Your task to perform on an android device: turn on priority inbox in the gmail app Image 0: 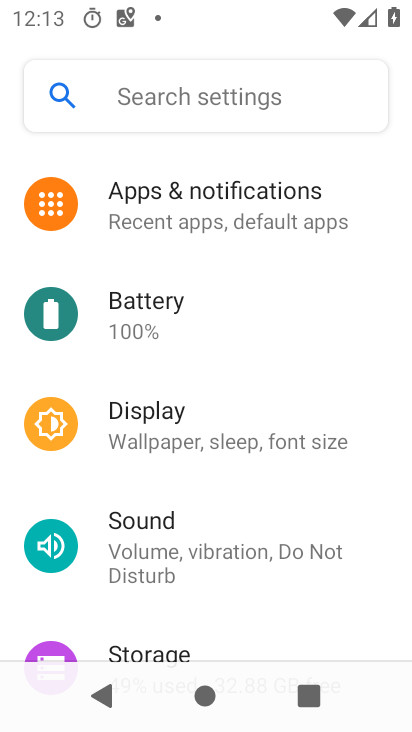
Step 0: press home button
Your task to perform on an android device: turn on priority inbox in the gmail app Image 1: 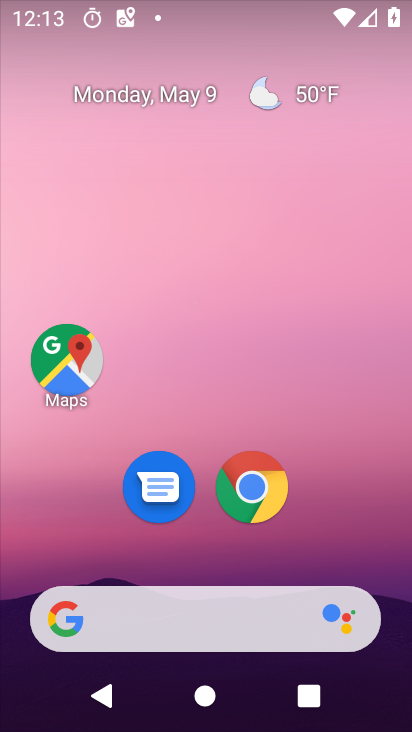
Step 1: drag from (310, 511) to (317, 173)
Your task to perform on an android device: turn on priority inbox in the gmail app Image 2: 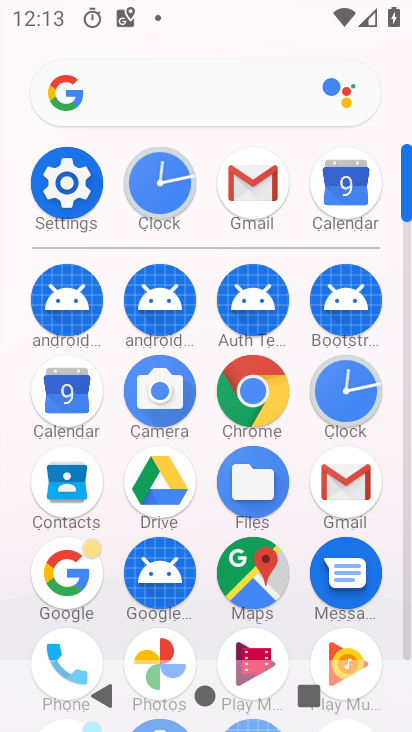
Step 2: click (242, 186)
Your task to perform on an android device: turn on priority inbox in the gmail app Image 3: 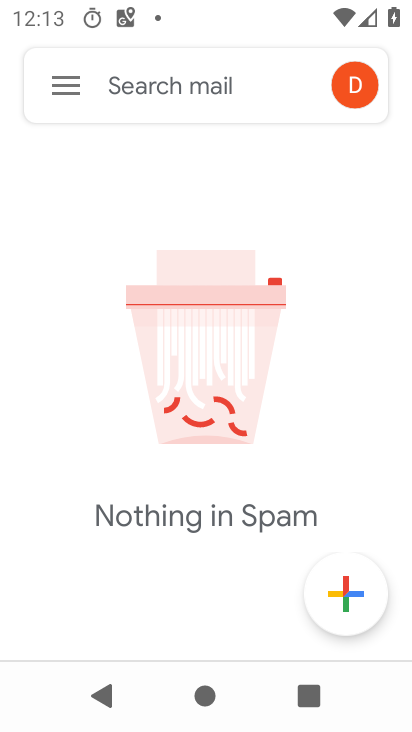
Step 3: click (53, 84)
Your task to perform on an android device: turn on priority inbox in the gmail app Image 4: 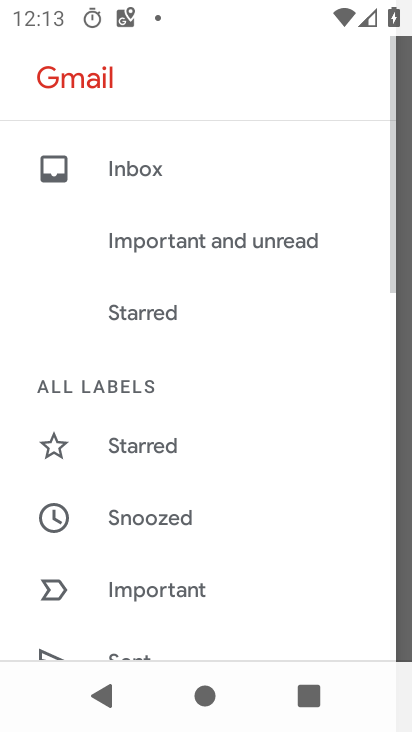
Step 4: drag from (182, 592) to (176, 191)
Your task to perform on an android device: turn on priority inbox in the gmail app Image 5: 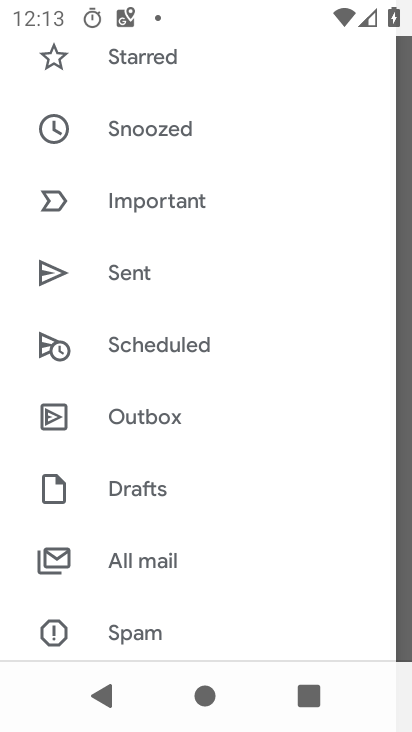
Step 5: drag from (203, 583) to (204, 181)
Your task to perform on an android device: turn on priority inbox in the gmail app Image 6: 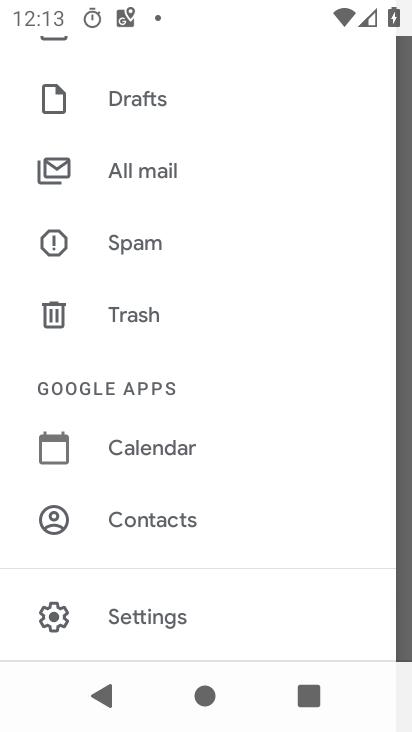
Step 6: click (163, 626)
Your task to perform on an android device: turn on priority inbox in the gmail app Image 7: 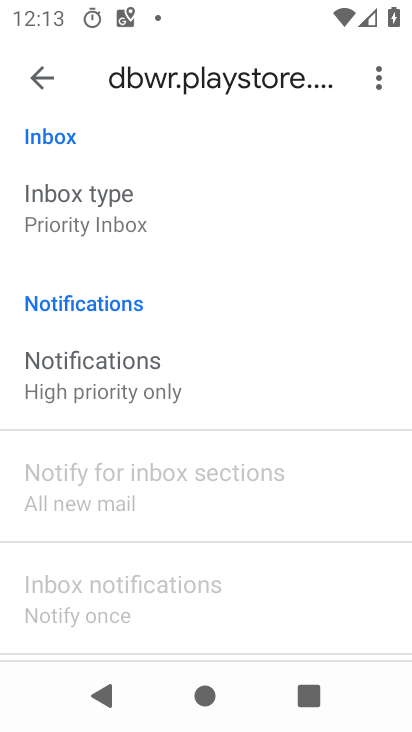
Step 7: click (129, 210)
Your task to perform on an android device: turn on priority inbox in the gmail app Image 8: 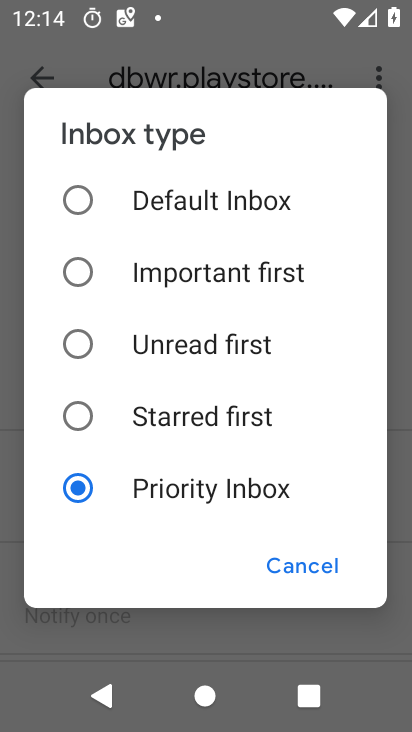
Step 8: task complete